Your task to perform on an android device: uninstall "Microsoft Authenticator" Image 0: 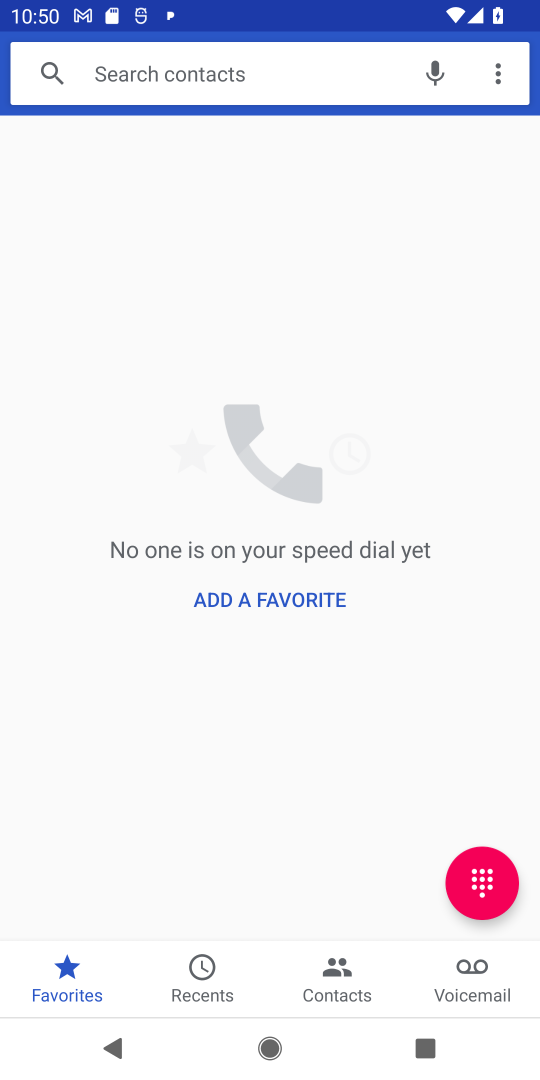
Step 0: press home button
Your task to perform on an android device: uninstall "Microsoft Authenticator" Image 1: 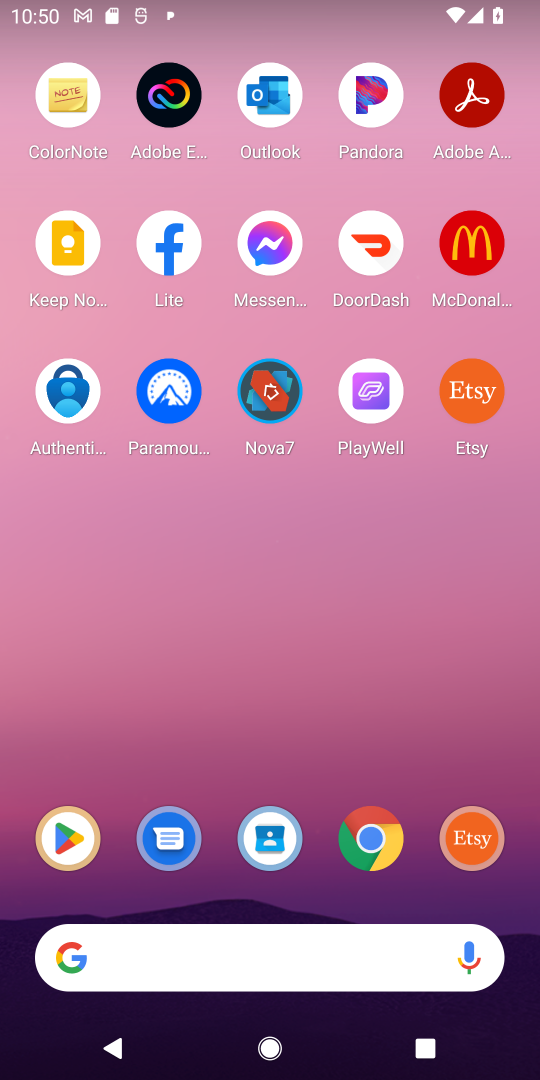
Step 1: click (66, 842)
Your task to perform on an android device: uninstall "Microsoft Authenticator" Image 2: 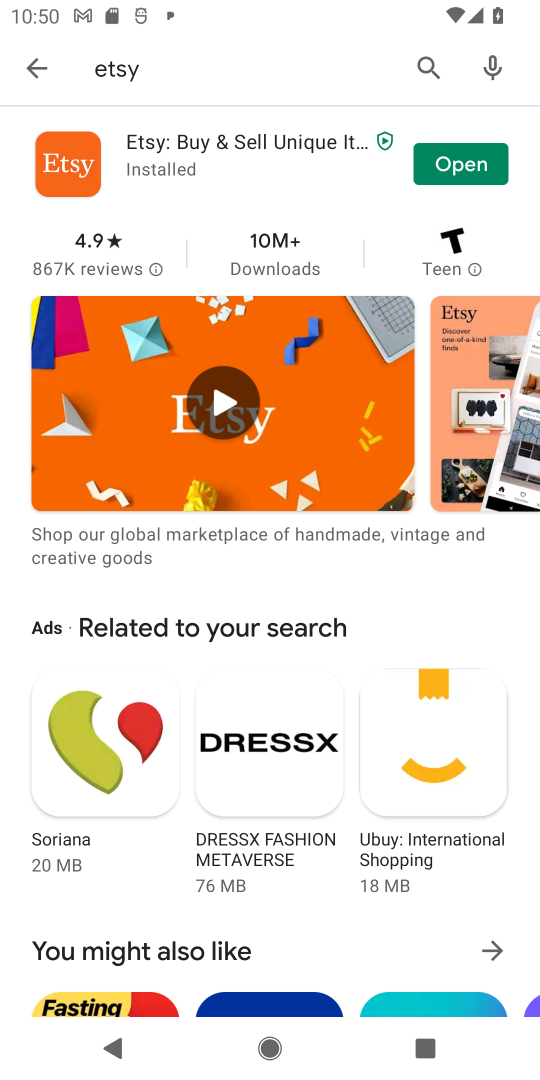
Step 2: click (178, 61)
Your task to perform on an android device: uninstall "Microsoft Authenticator" Image 3: 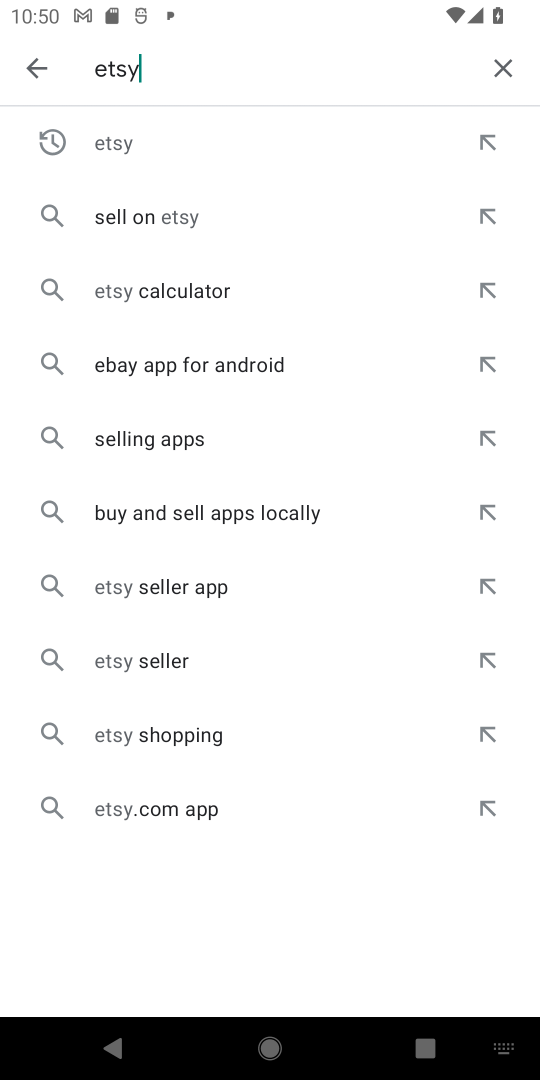
Step 3: click (508, 72)
Your task to perform on an android device: uninstall "Microsoft Authenticator" Image 4: 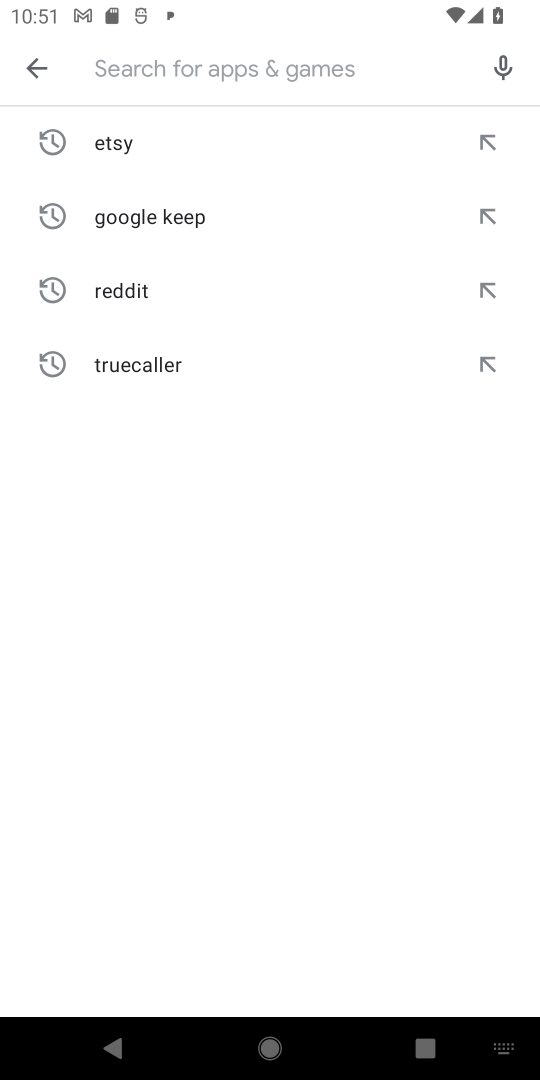
Step 4: type "Microsoft Authenticator"
Your task to perform on an android device: uninstall "Microsoft Authenticator" Image 5: 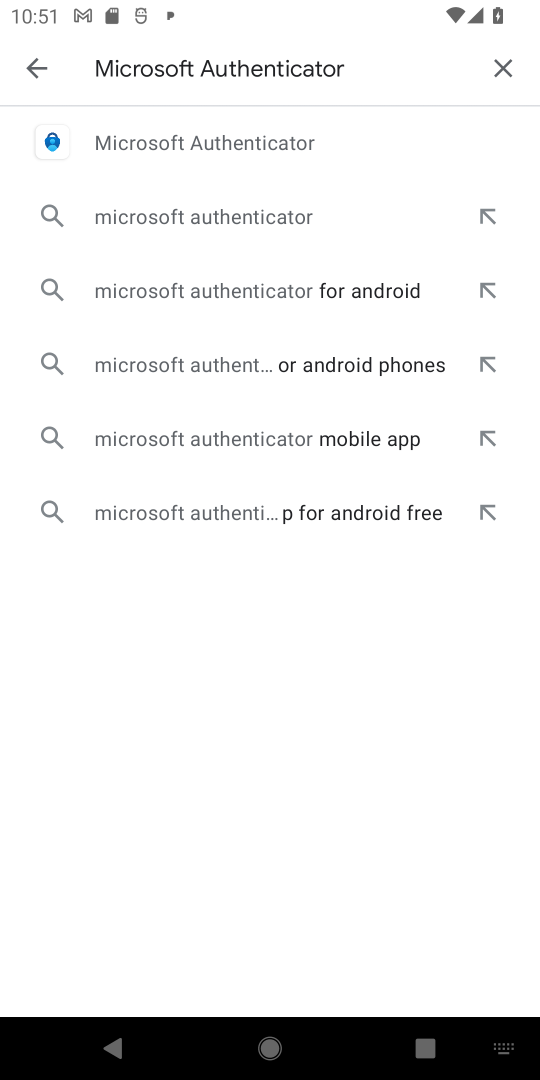
Step 5: click (242, 157)
Your task to perform on an android device: uninstall "Microsoft Authenticator" Image 6: 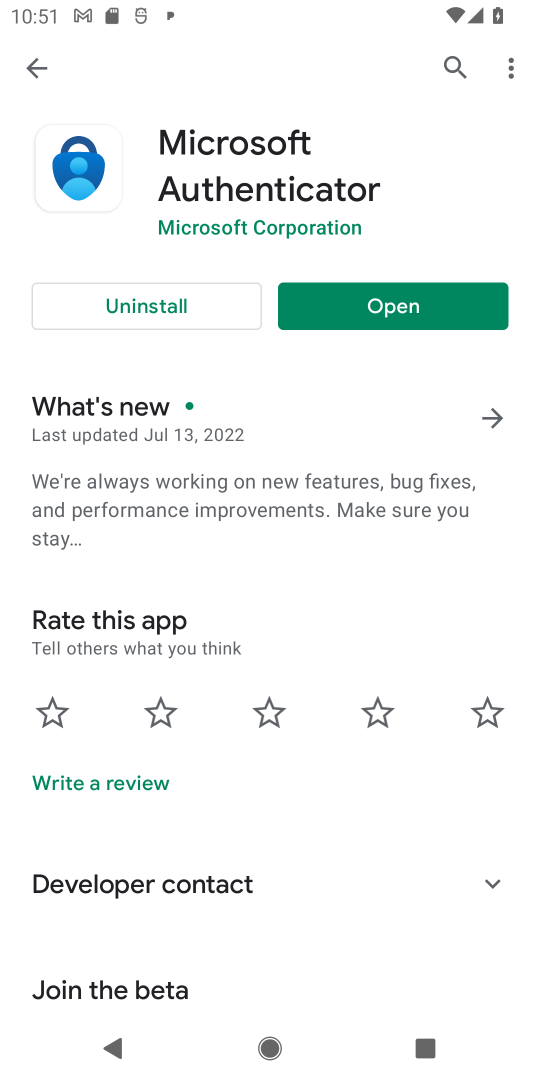
Step 6: click (179, 306)
Your task to perform on an android device: uninstall "Microsoft Authenticator" Image 7: 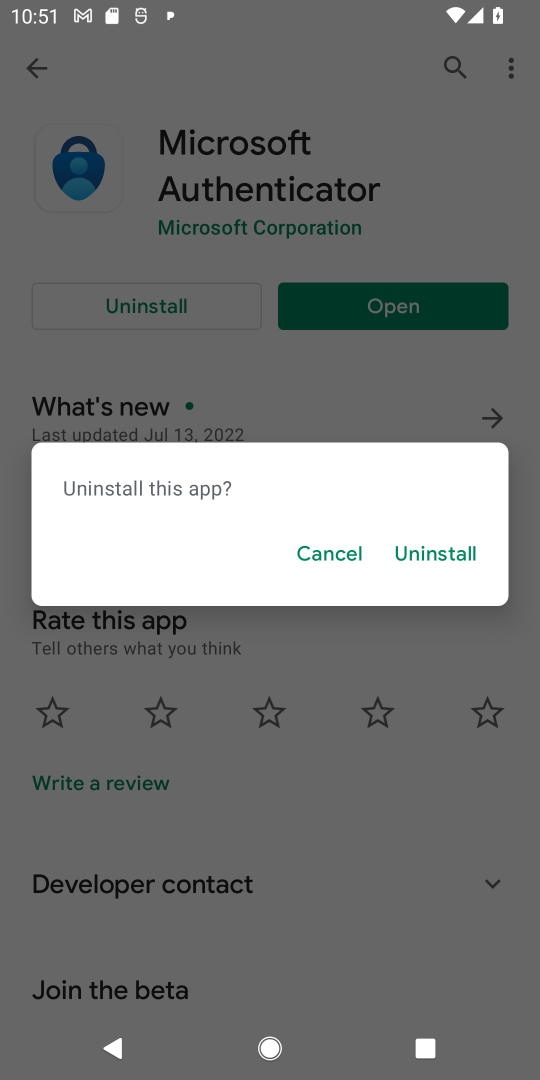
Step 7: click (441, 546)
Your task to perform on an android device: uninstall "Microsoft Authenticator" Image 8: 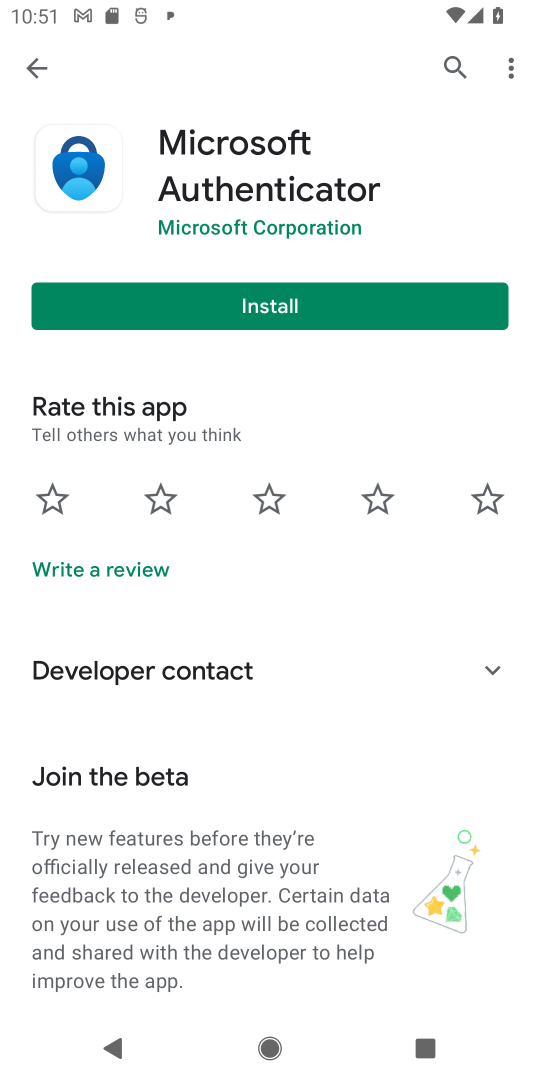
Step 8: task complete